Your task to perform on an android device: Open battery settings Image 0: 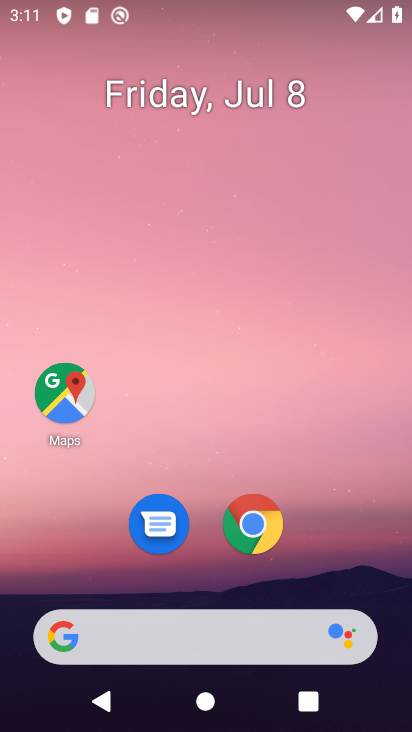
Step 0: drag from (332, 570) to (309, 21)
Your task to perform on an android device: Open battery settings Image 1: 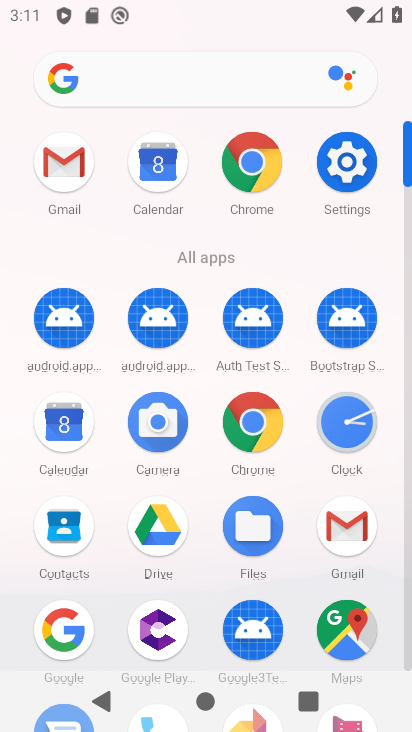
Step 1: click (344, 156)
Your task to perform on an android device: Open battery settings Image 2: 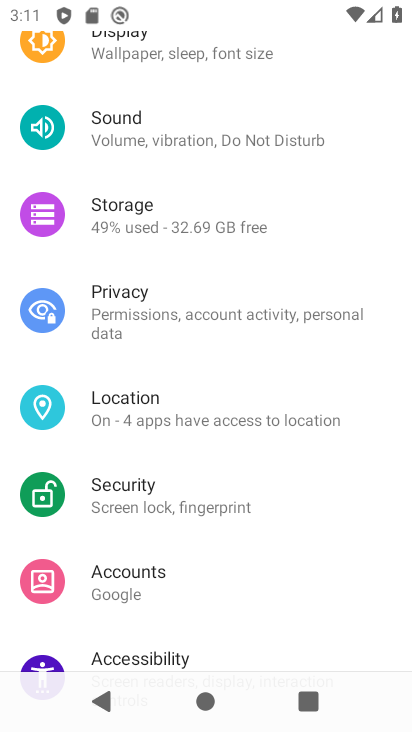
Step 2: drag from (251, 233) to (267, 587)
Your task to perform on an android device: Open battery settings Image 3: 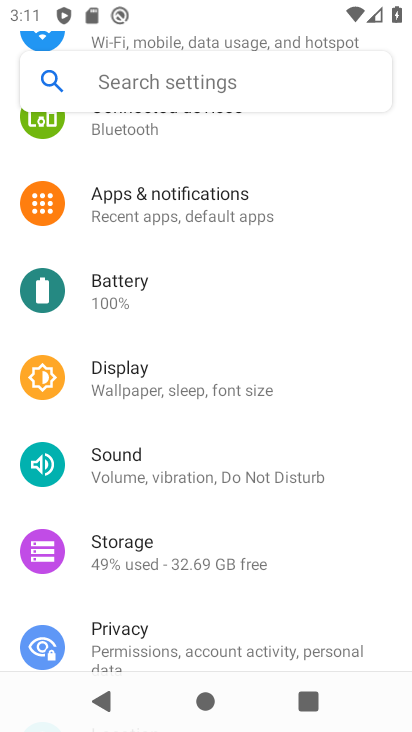
Step 3: click (132, 286)
Your task to perform on an android device: Open battery settings Image 4: 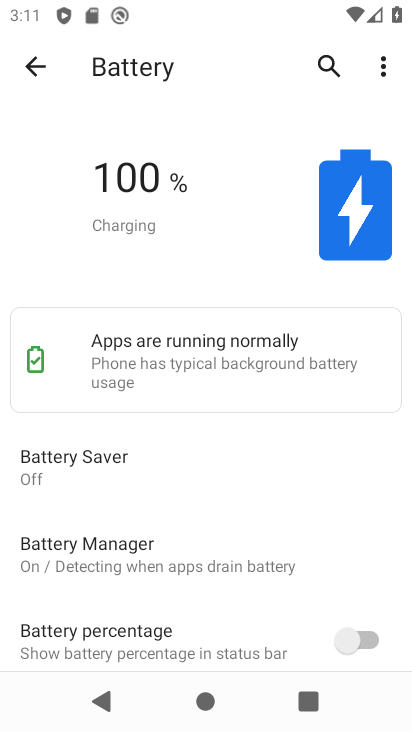
Step 4: task complete